Your task to perform on an android device: turn pop-ups off in chrome Image 0: 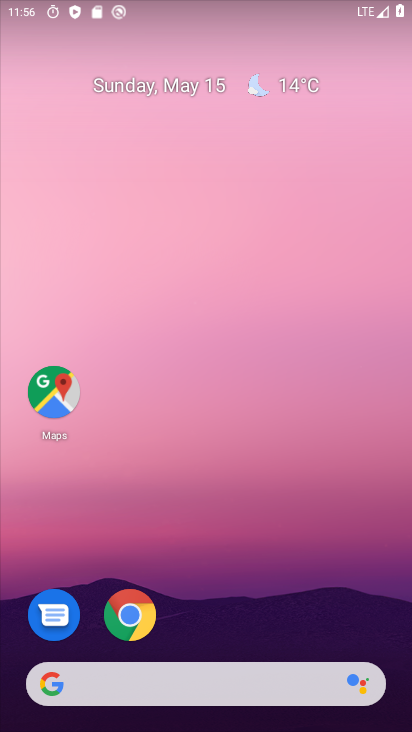
Step 0: drag from (350, 457) to (358, 14)
Your task to perform on an android device: turn pop-ups off in chrome Image 1: 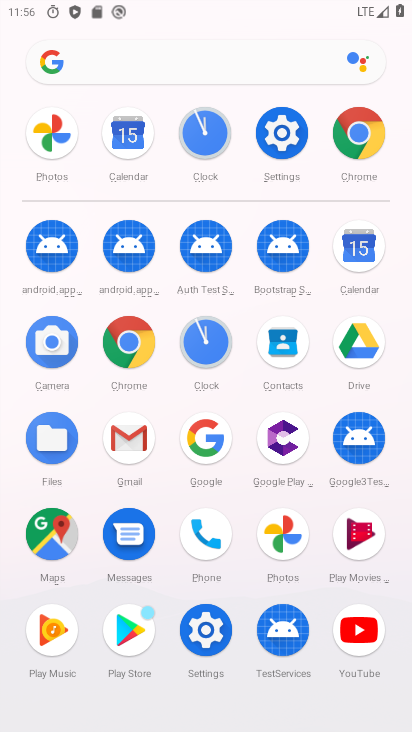
Step 1: click (367, 127)
Your task to perform on an android device: turn pop-ups off in chrome Image 2: 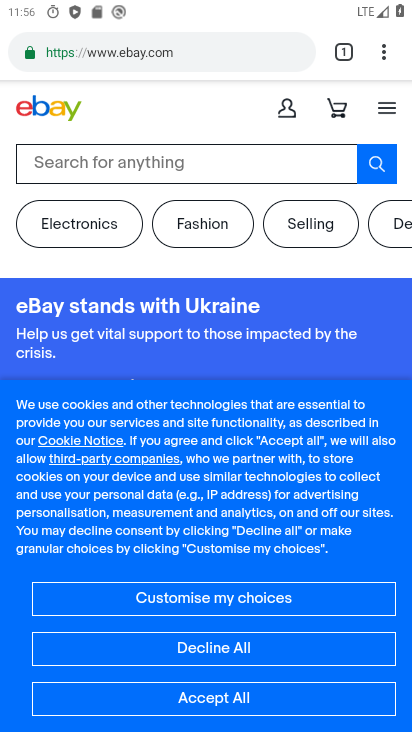
Step 2: drag from (391, 60) to (238, 623)
Your task to perform on an android device: turn pop-ups off in chrome Image 3: 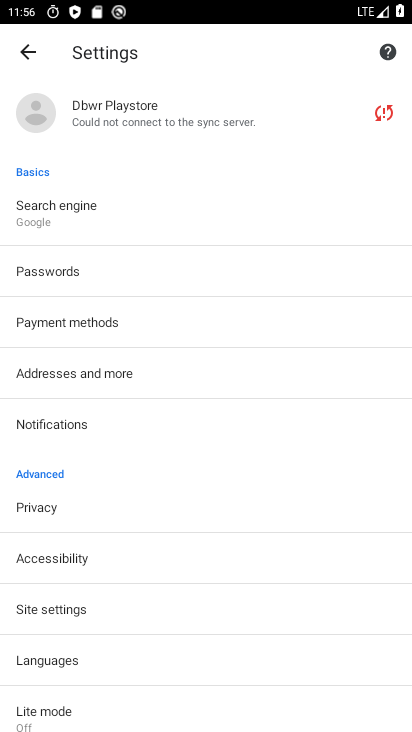
Step 3: drag from (109, 610) to (136, 407)
Your task to perform on an android device: turn pop-ups off in chrome Image 4: 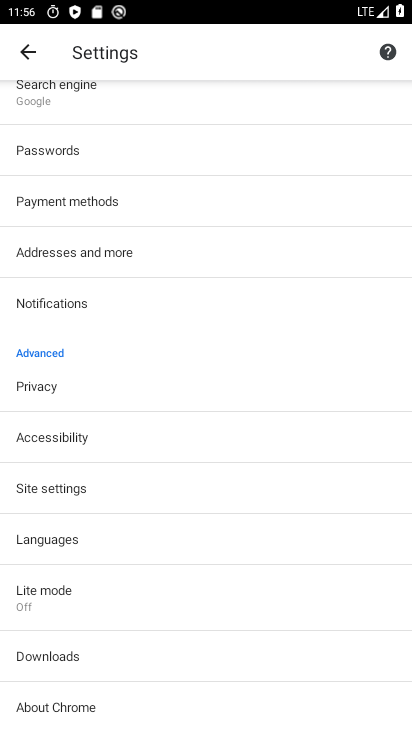
Step 4: click (45, 498)
Your task to perform on an android device: turn pop-ups off in chrome Image 5: 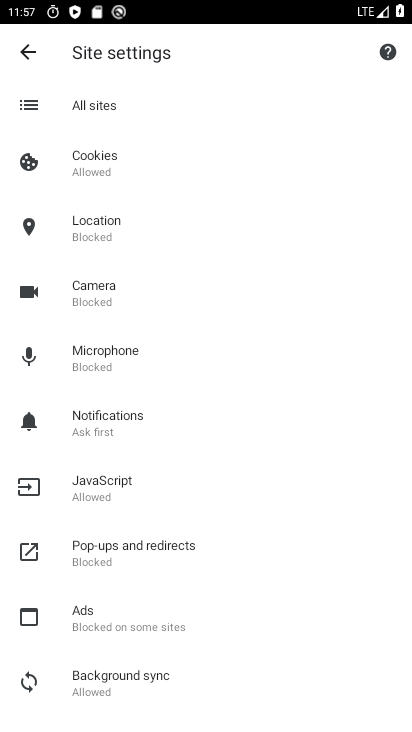
Step 5: click (148, 558)
Your task to perform on an android device: turn pop-ups off in chrome Image 6: 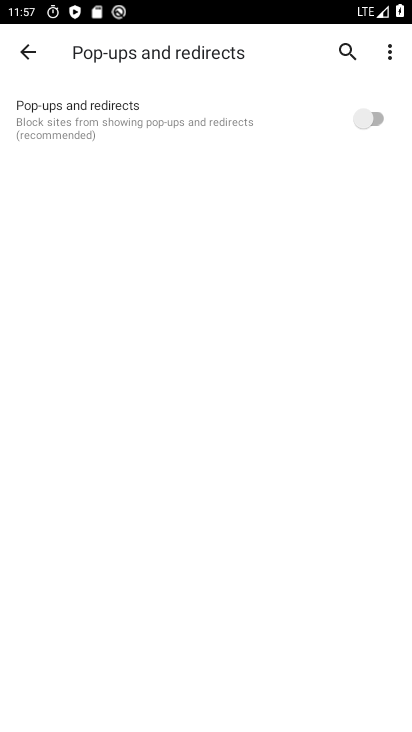
Step 6: task complete